Your task to perform on an android device: turn off location history Image 0: 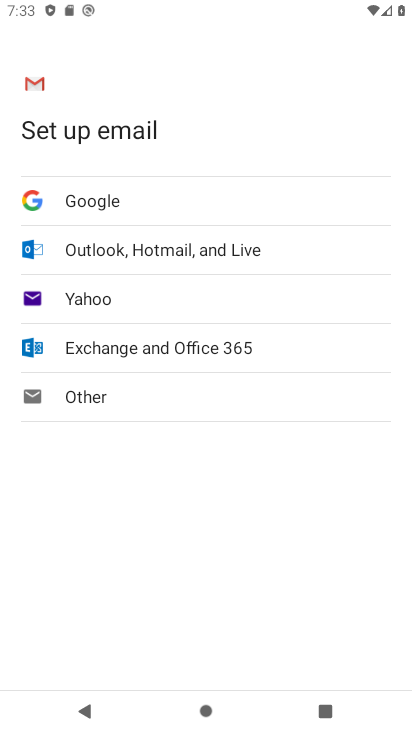
Step 0: press home button
Your task to perform on an android device: turn off location history Image 1: 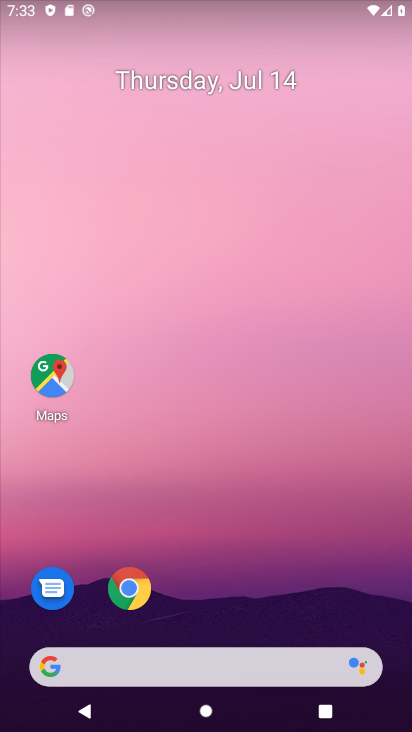
Step 1: drag from (175, 547) to (232, 128)
Your task to perform on an android device: turn off location history Image 2: 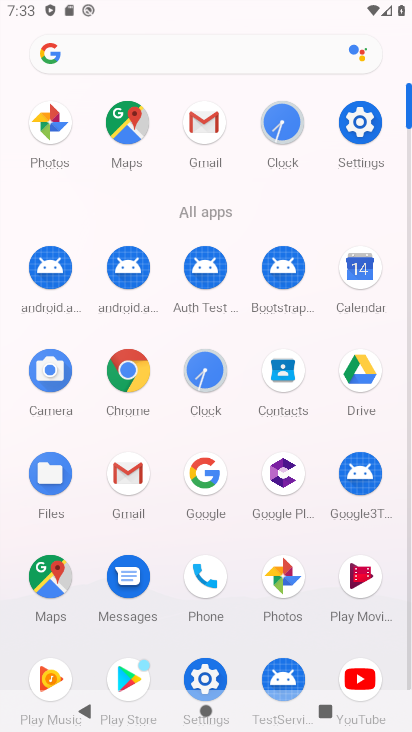
Step 2: click (363, 121)
Your task to perform on an android device: turn off location history Image 3: 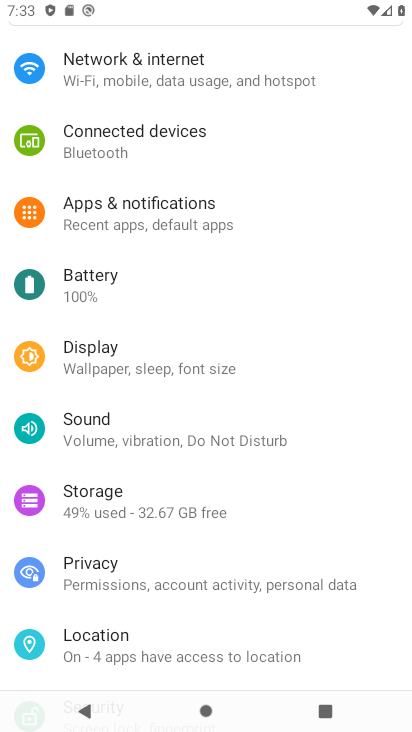
Step 3: click (134, 646)
Your task to perform on an android device: turn off location history Image 4: 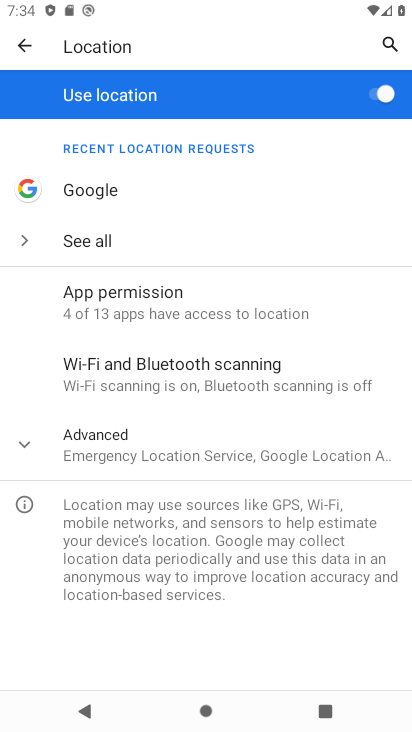
Step 4: click (206, 441)
Your task to perform on an android device: turn off location history Image 5: 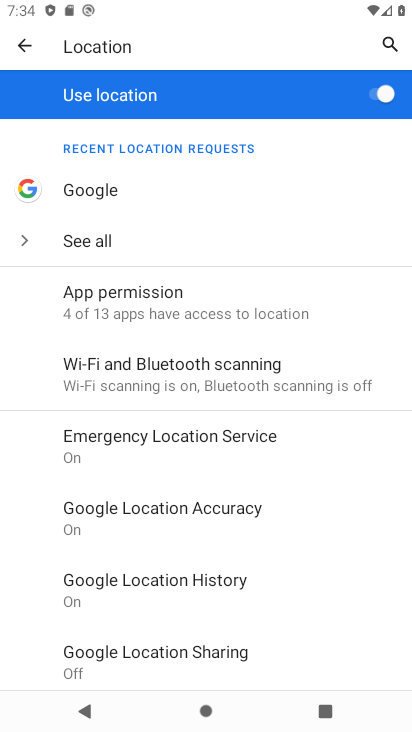
Step 5: click (218, 575)
Your task to perform on an android device: turn off location history Image 6: 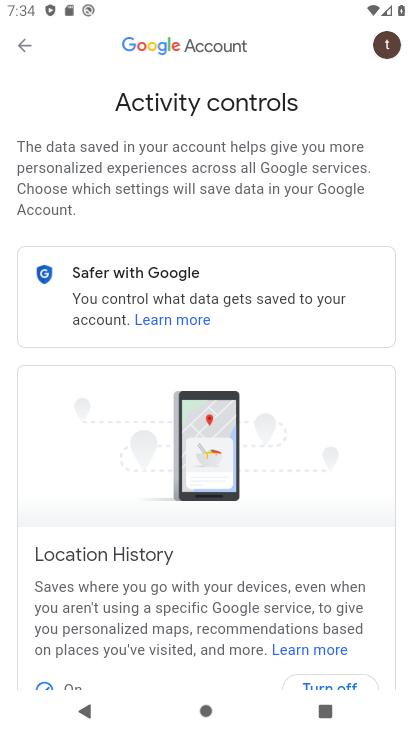
Step 6: drag from (241, 446) to (242, 132)
Your task to perform on an android device: turn off location history Image 7: 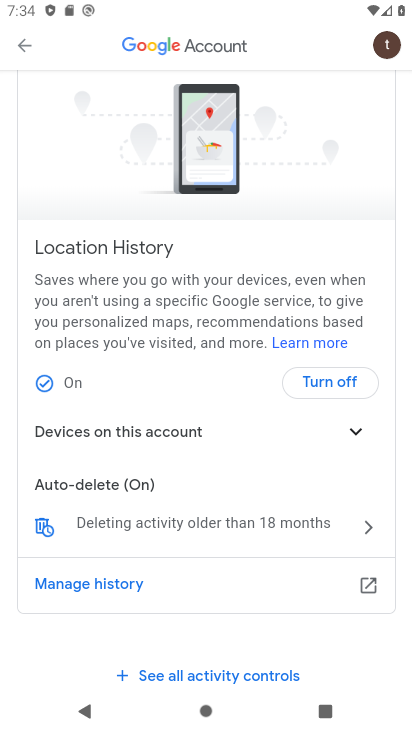
Step 7: click (355, 388)
Your task to perform on an android device: turn off location history Image 8: 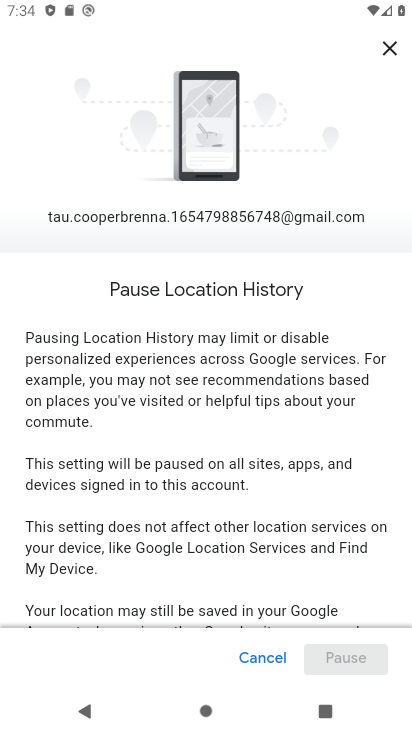
Step 8: task complete